Your task to perform on an android device: uninstall "LinkedIn" Image 0: 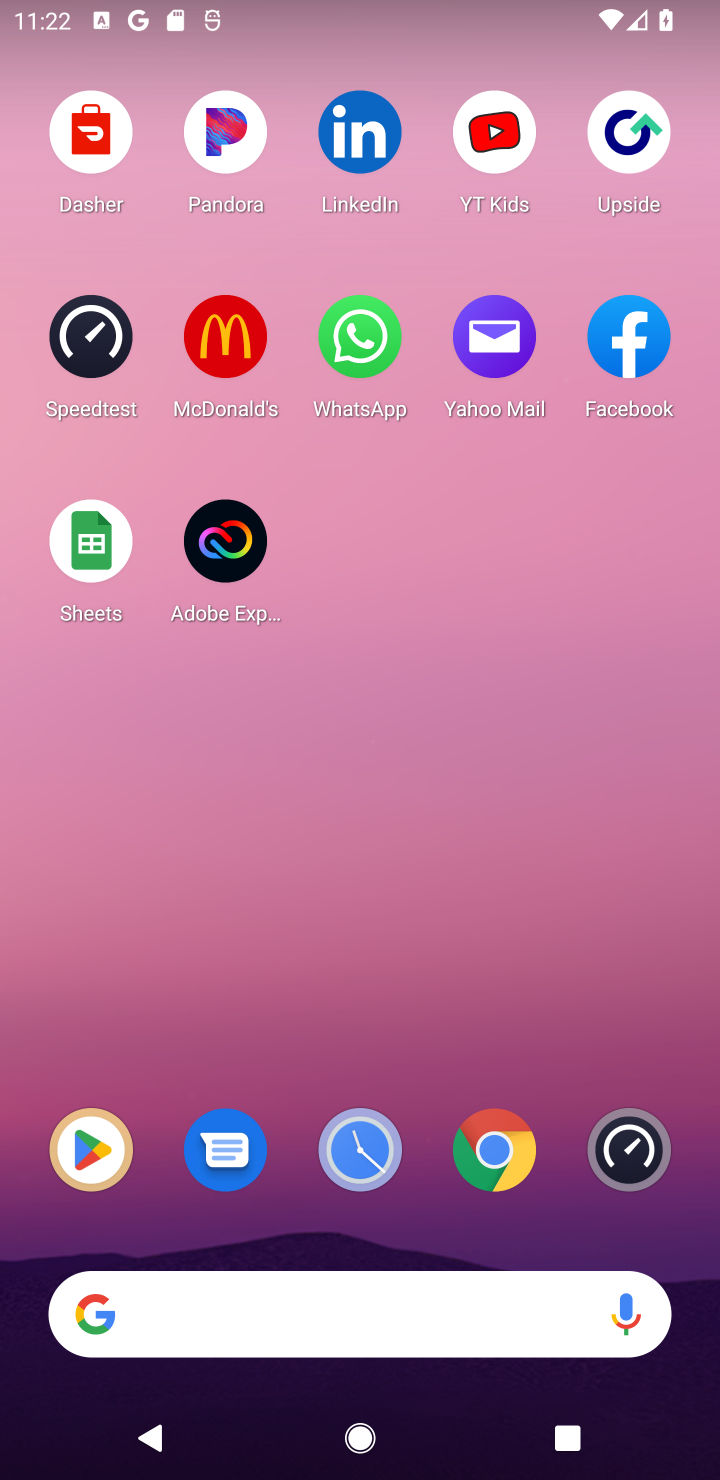
Step 0: click (84, 1138)
Your task to perform on an android device: uninstall "LinkedIn" Image 1: 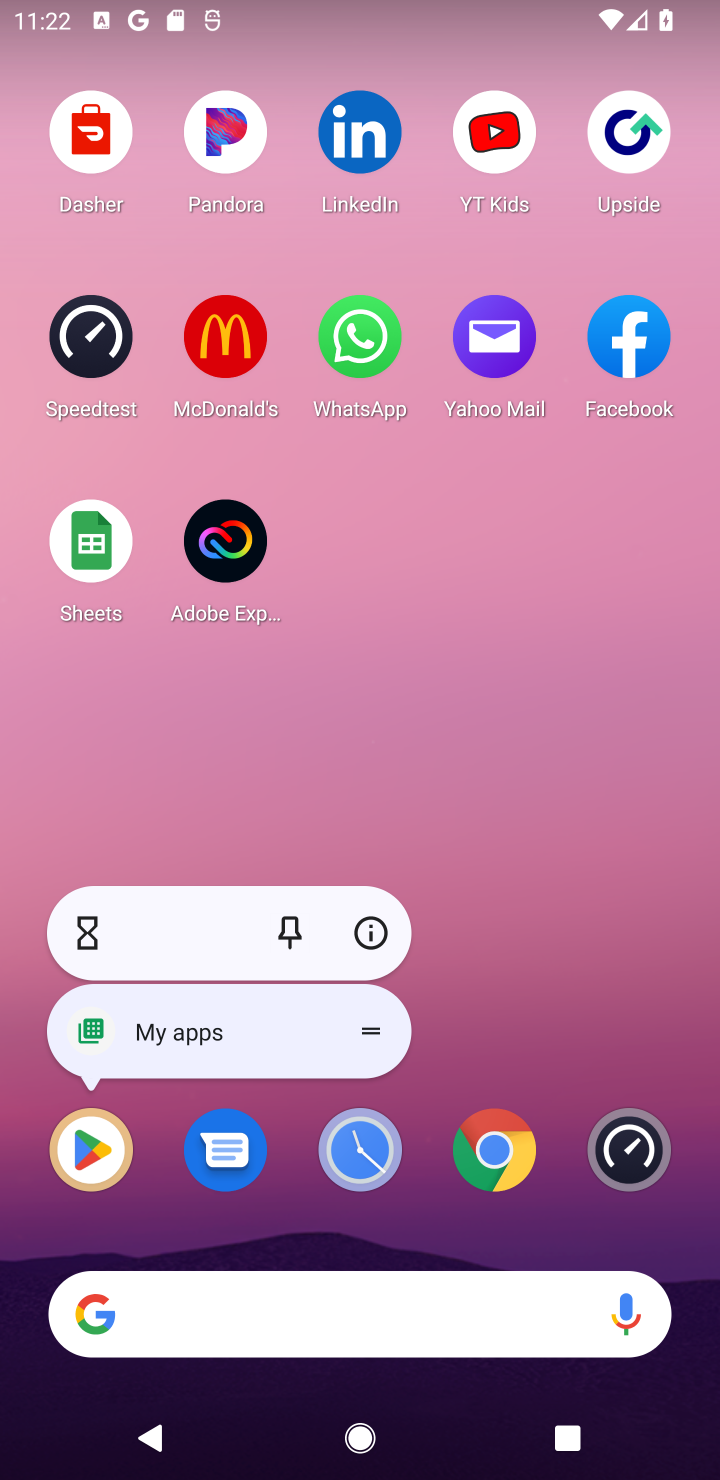
Step 1: click (90, 1150)
Your task to perform on an android device: uninstall "LinkedIn" Image 2: 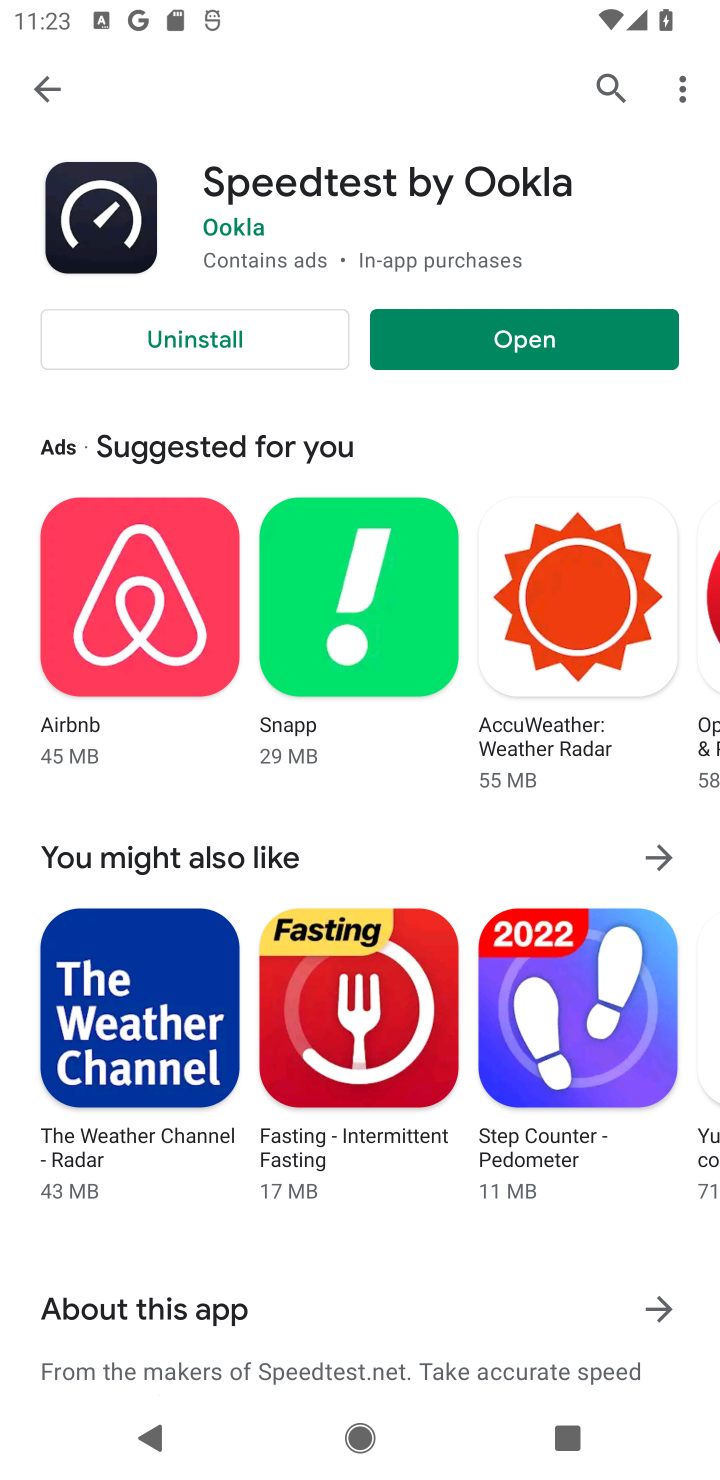
Step 2: click (596, 108)
Your task to perform on an android device: uninstall "LinkedIn" Image 3: 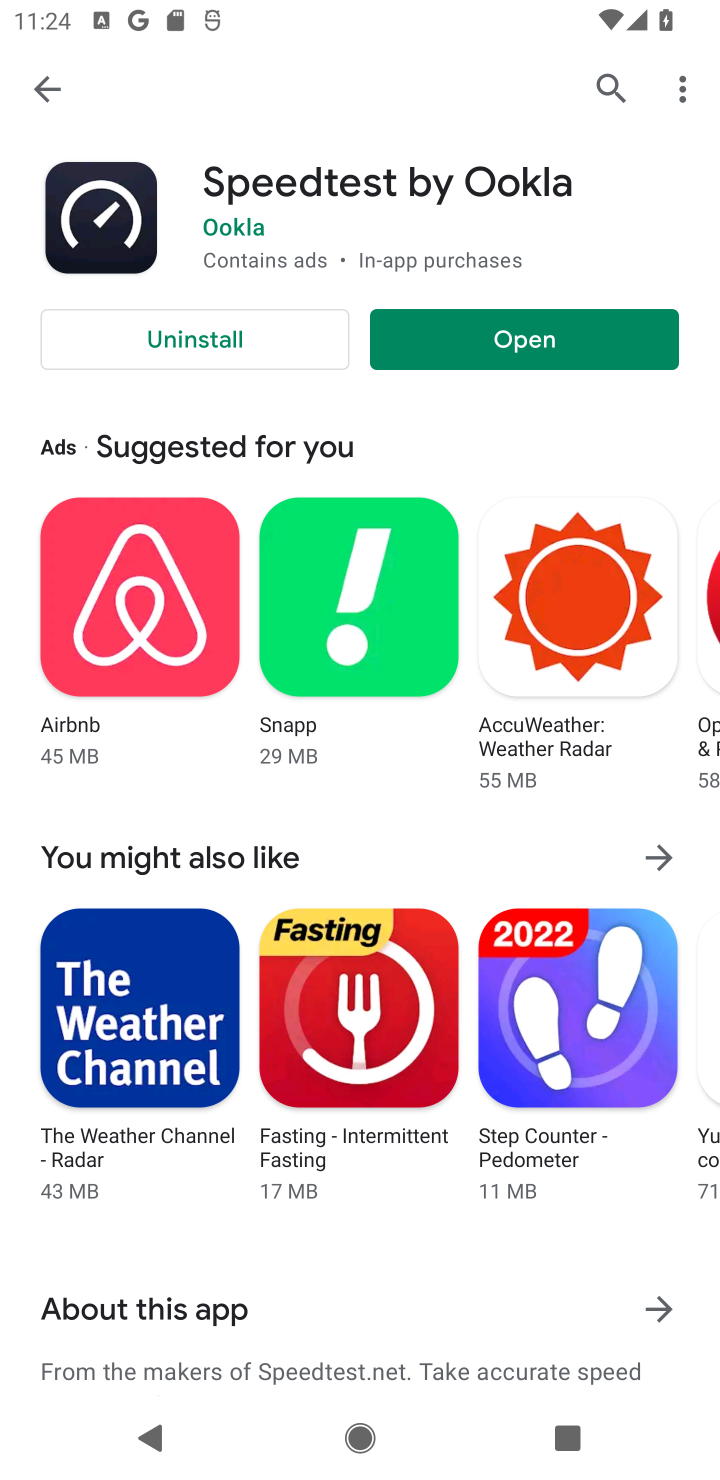
Step 3: click (597, 55)
Your task to perform on an android device: uninstall "LinkedIn" Image 4: 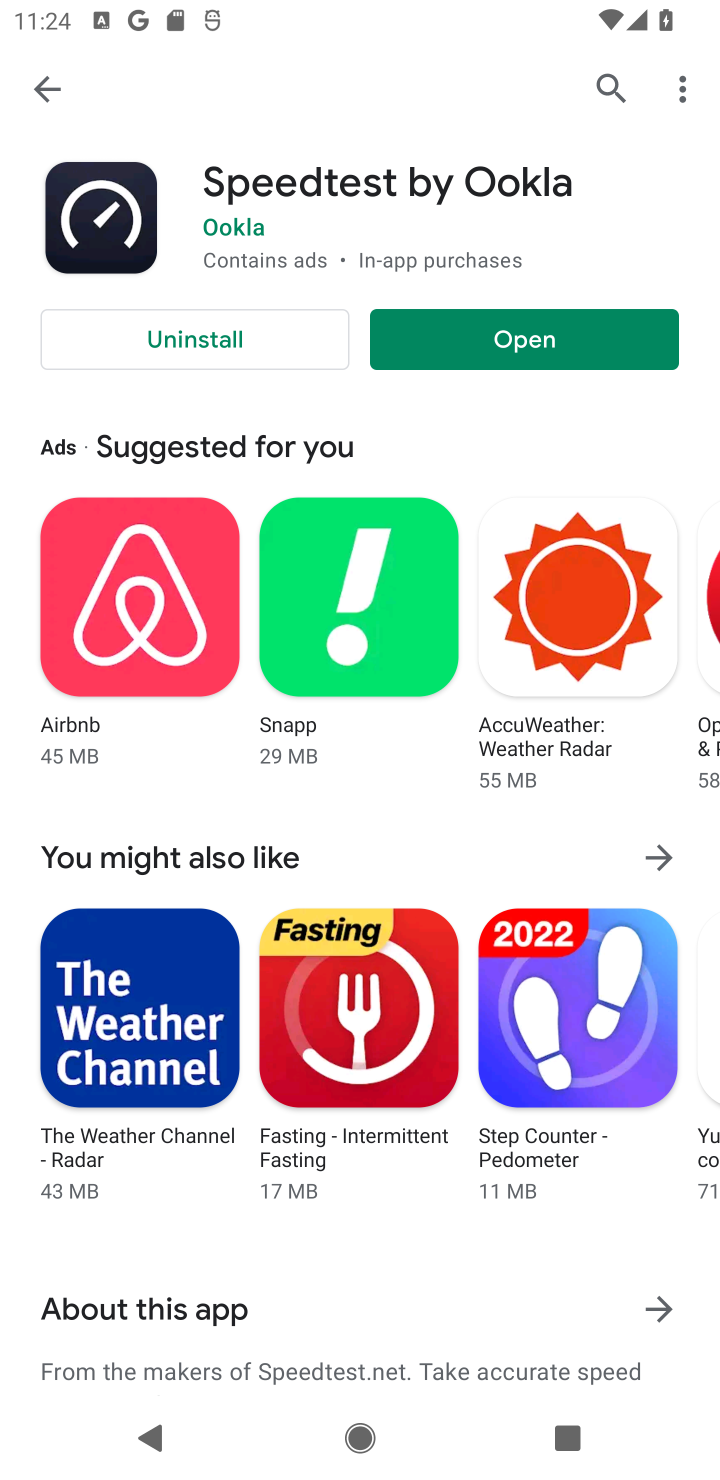
Step 4: click (605, 73)
Your task to perform on an android device: uninstall "LinkedIn" Image 5: 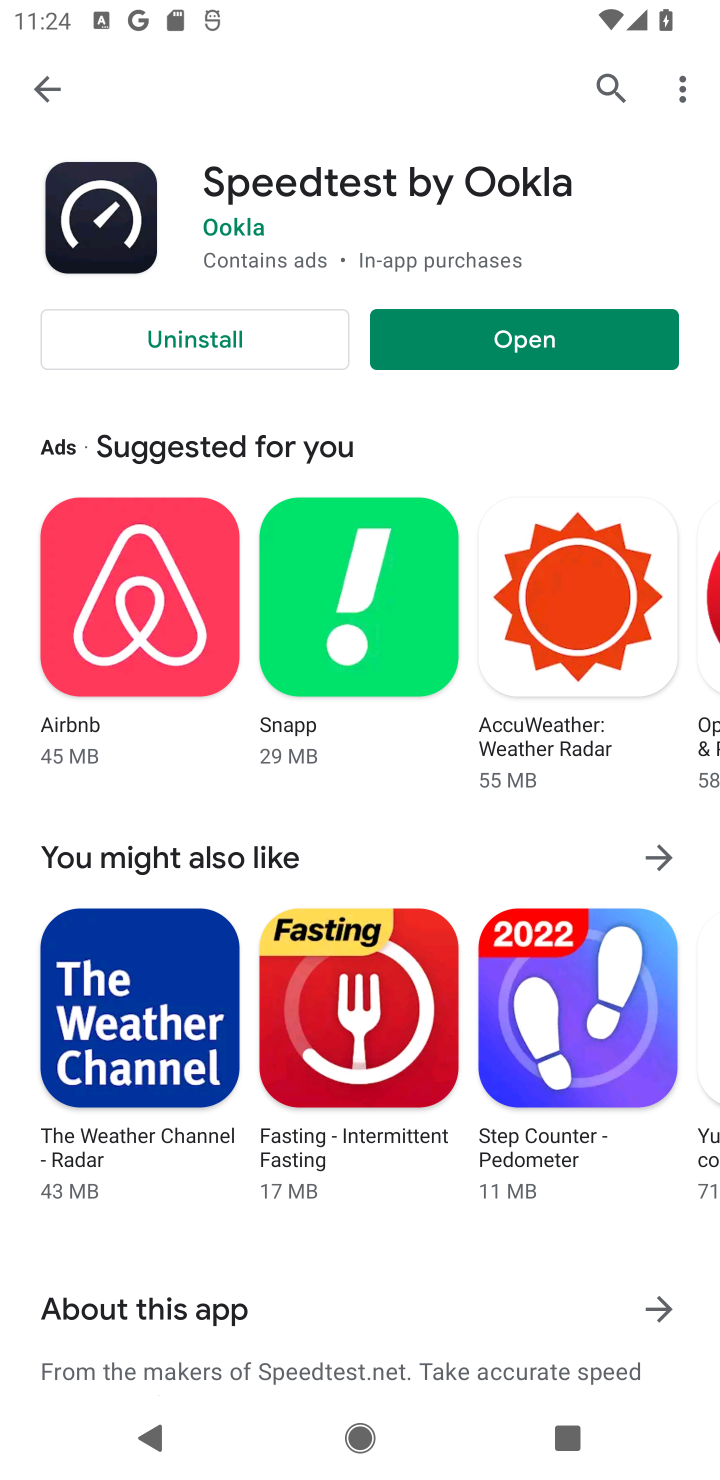
Step 5: click (597, 83)
Your task to perform on an android device: uninstall "LinkedIn" Image 6: 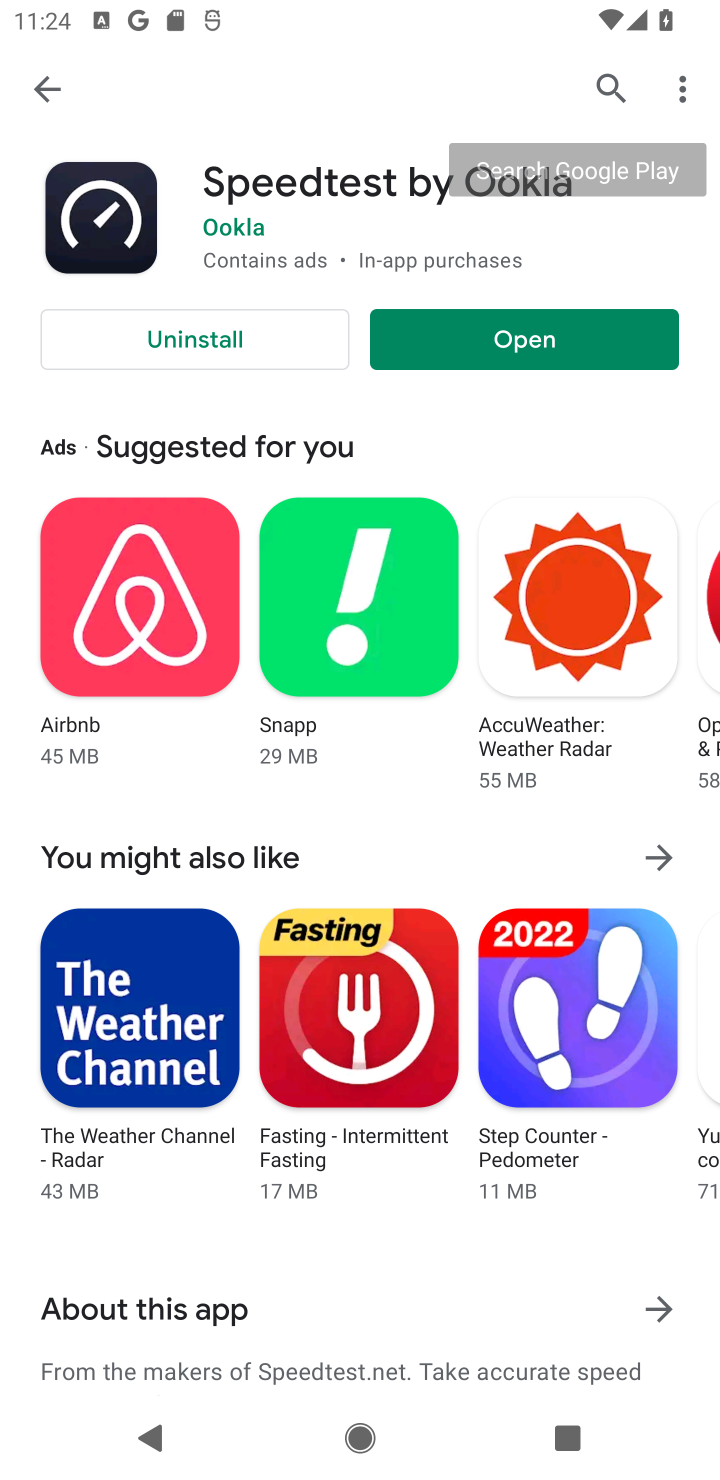
Step 6: click (40, 85)
Your task to perform on an android device: uninstall "LinkedIn" Image 7: 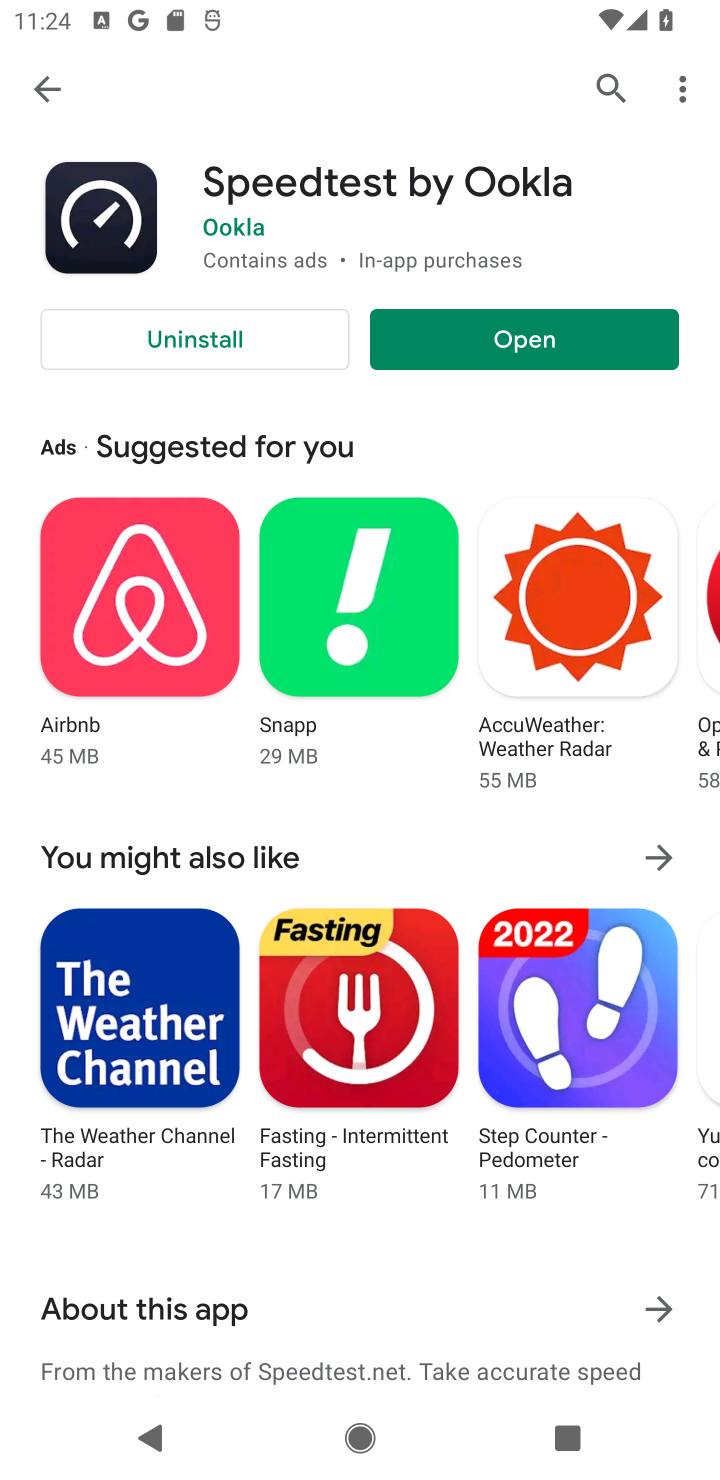
Step 7: click (626, 78)
Your task to perform on an android device: uninstall "LinkedIn" Image 8: 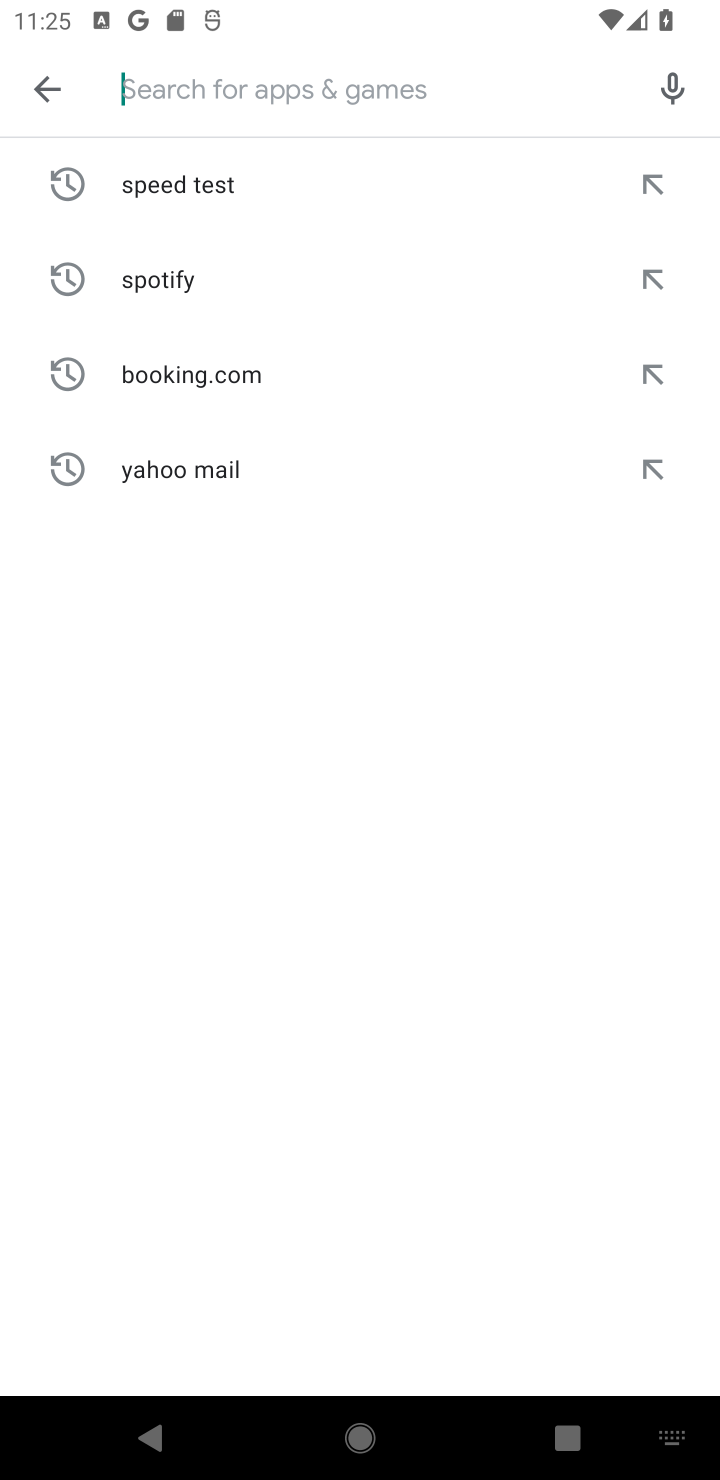
Step 8: click (262, 86)
Your task to perform on an android device: uninstall "LinkedIn" Image 9: 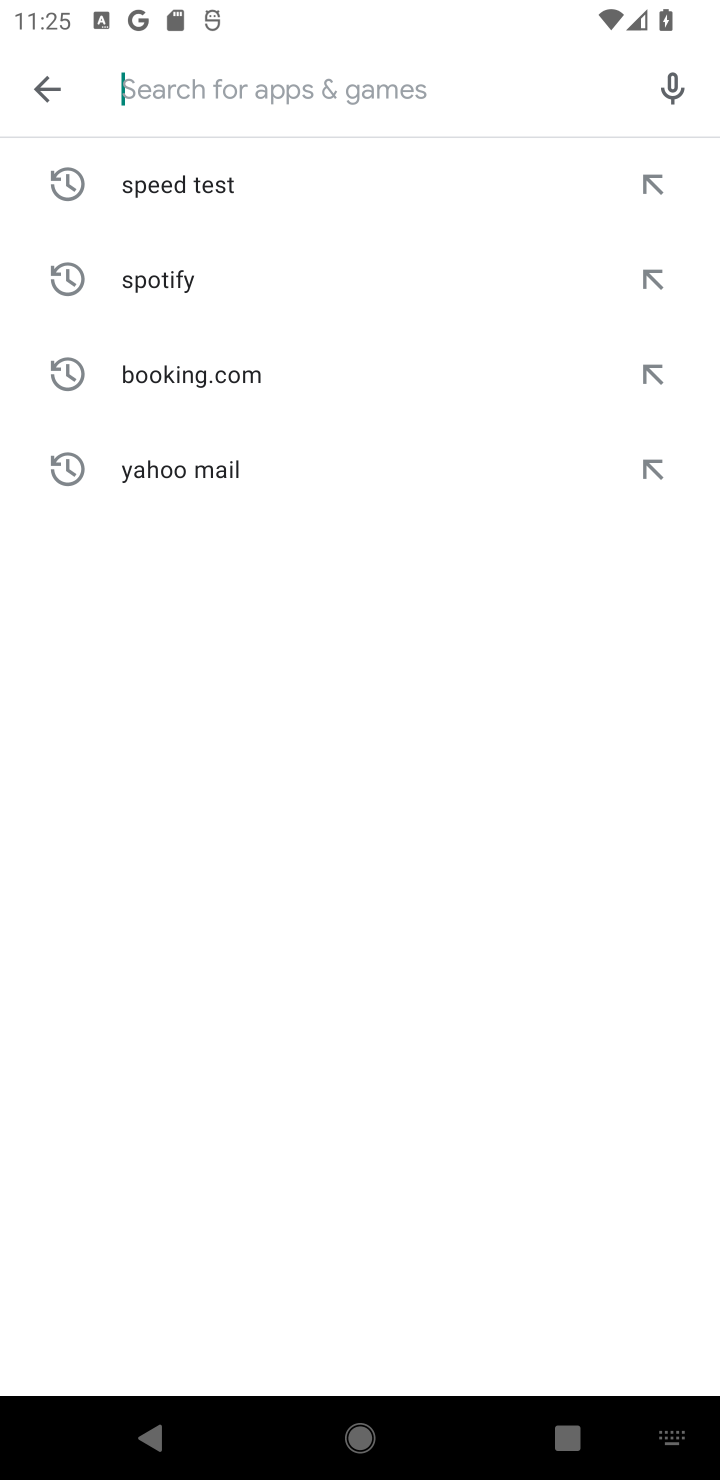
Step 9: type "linkedln"
Your task to perform on an android device: uninstall "LinkedIn" Image 10: 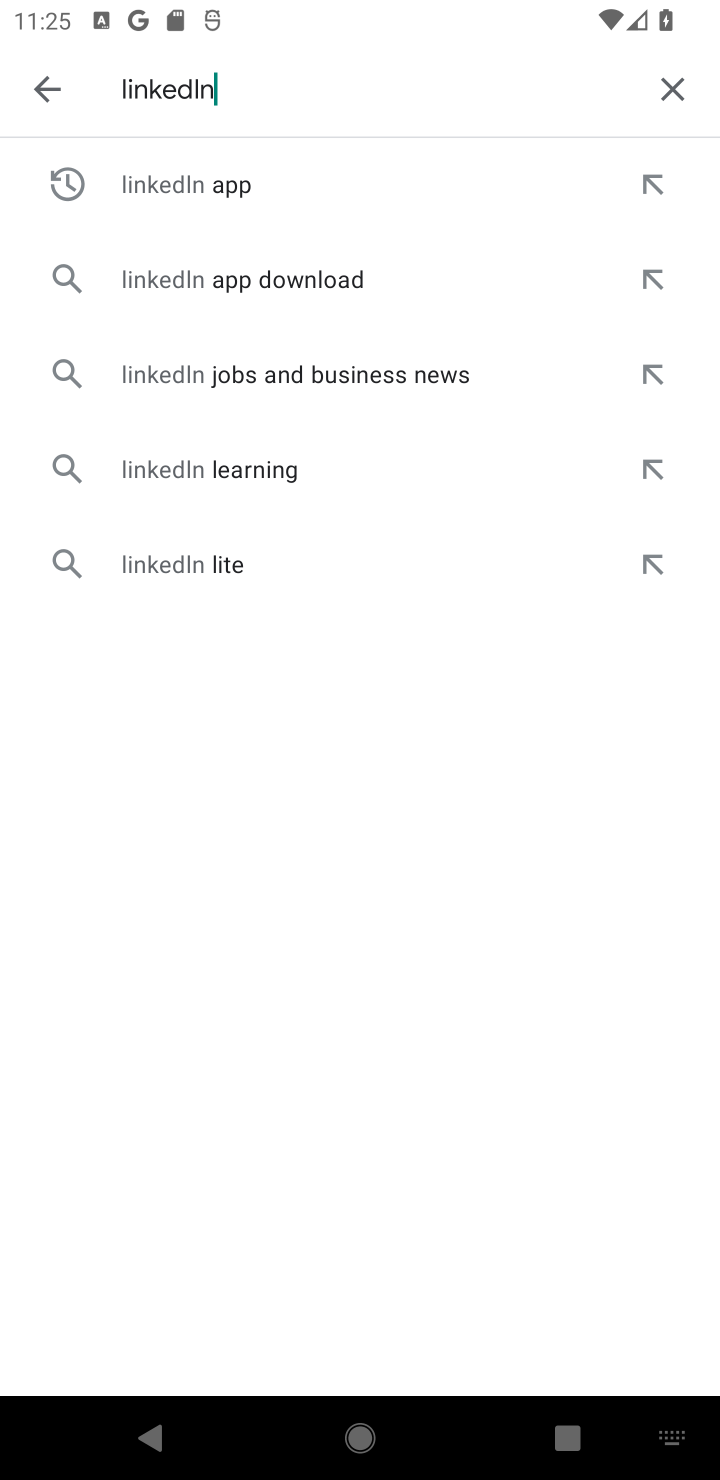
Step 10: click (260, 198)
Your task to perform on an android device: uninstall "LinkedIn" Image 11: 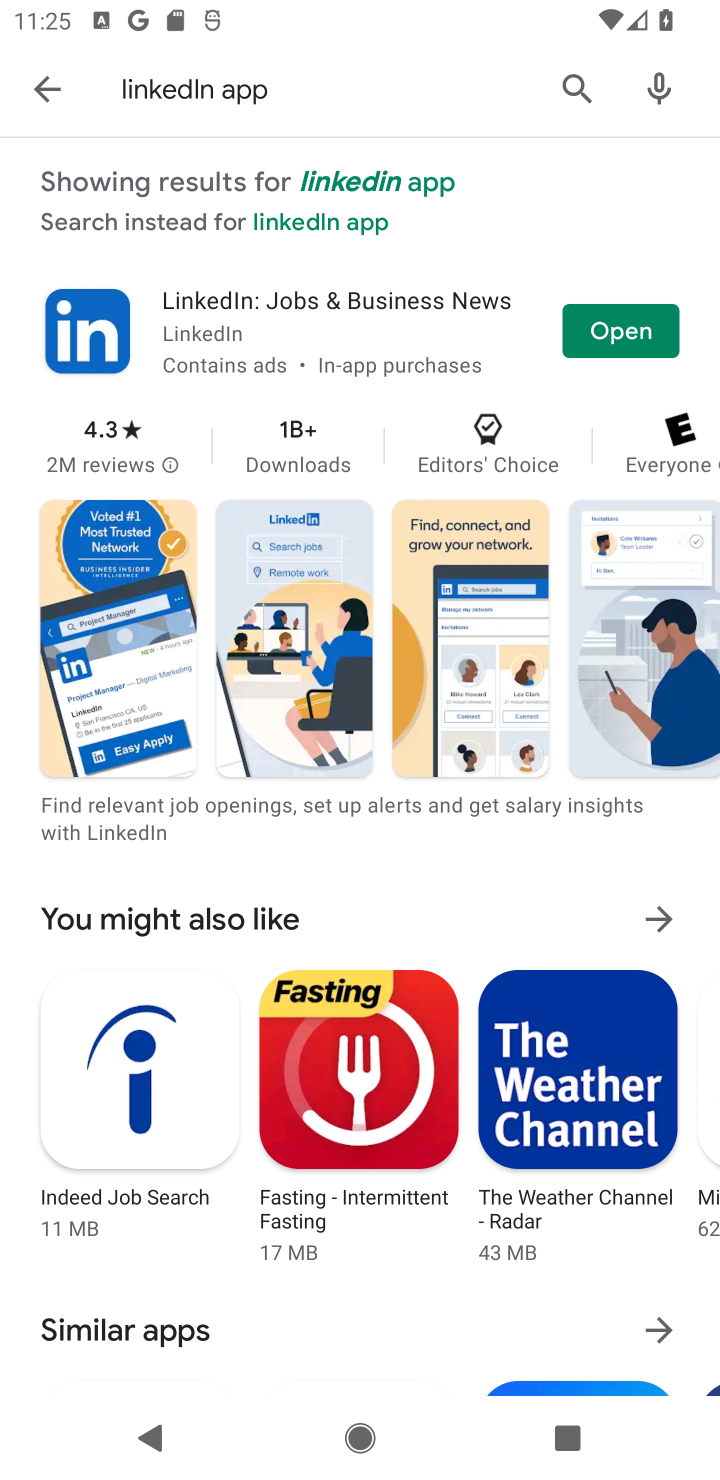
Step 11: click (256, 330)
Your task to perform on an android device: uninstall "LinkedIn" Image 12: 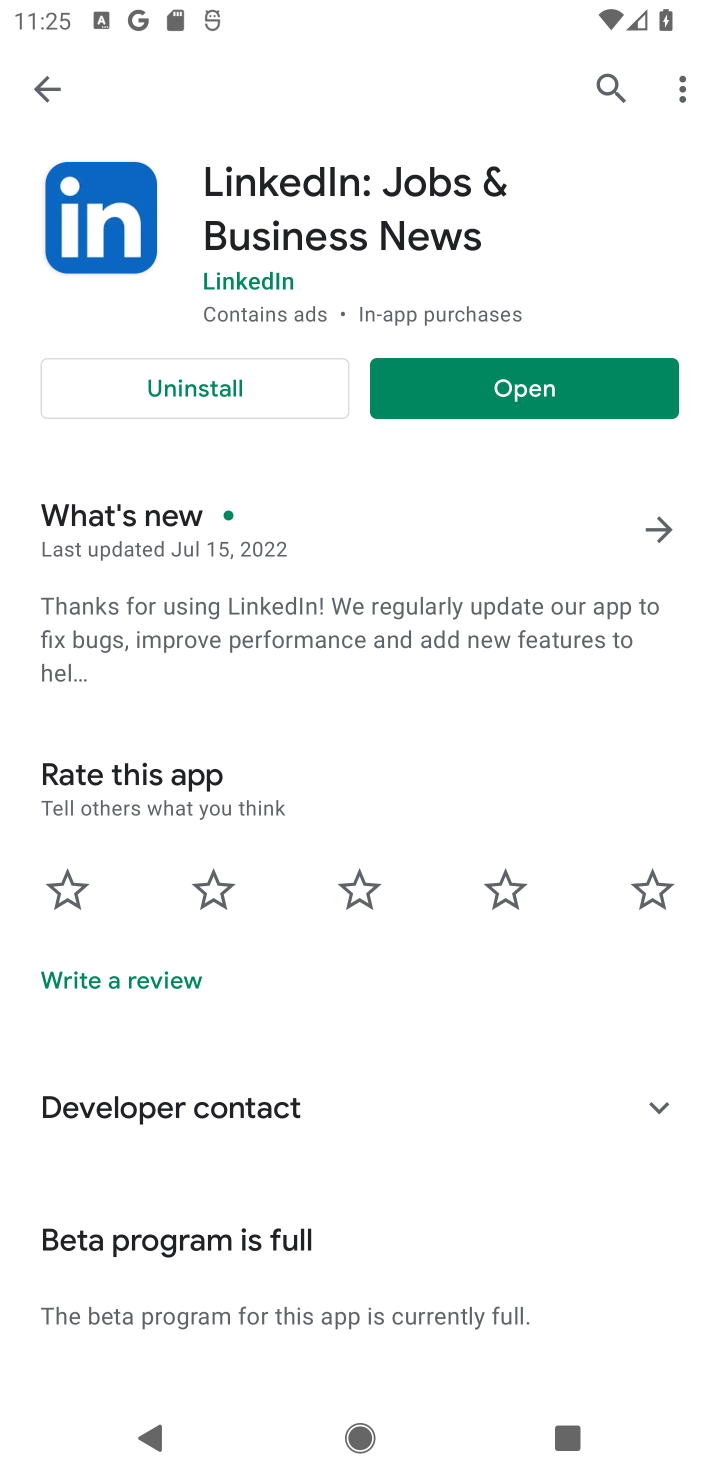
Step 12: click (236, 384)
Your task to perform on an android device: uninstall "LinkedIn" Image 13: 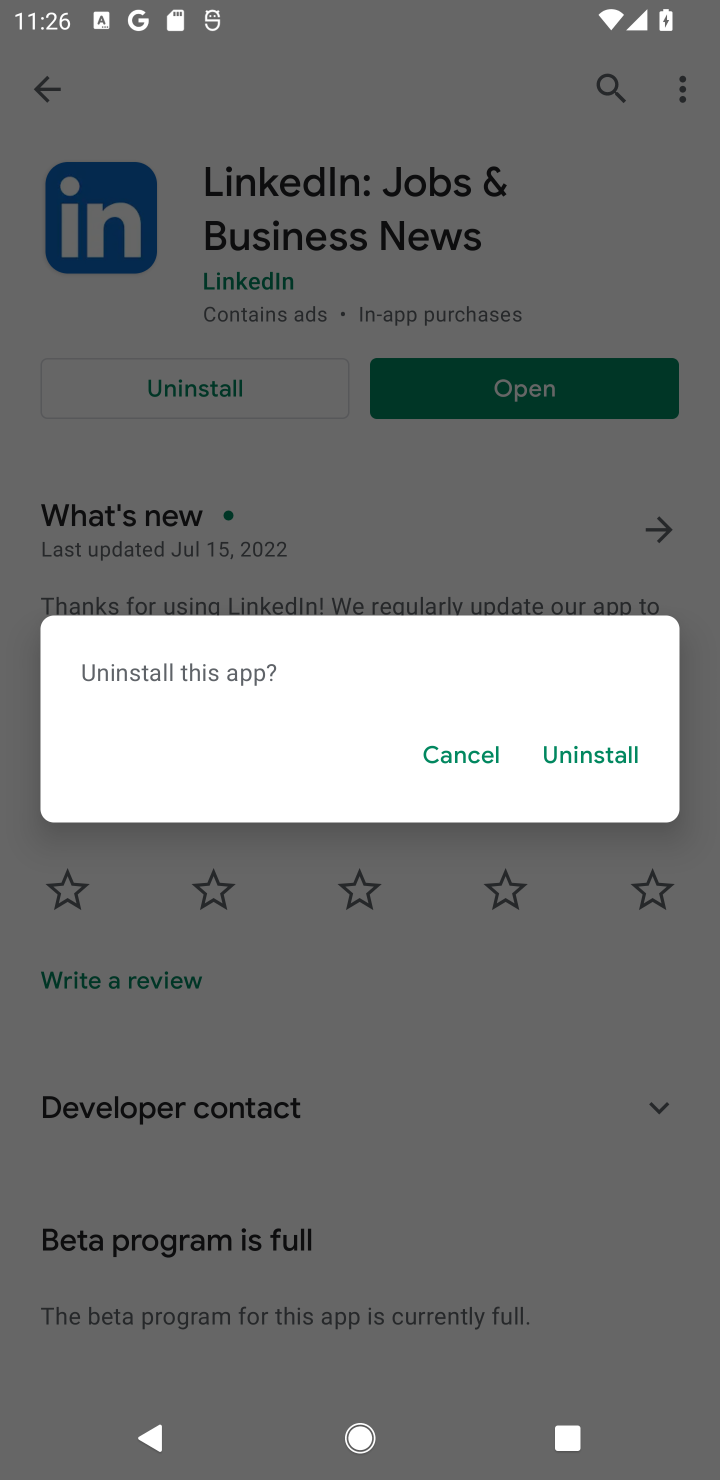
Step 13: click (590, 762)
Your task to perform on an android device: uninstall "LinkedIn" Image 14: 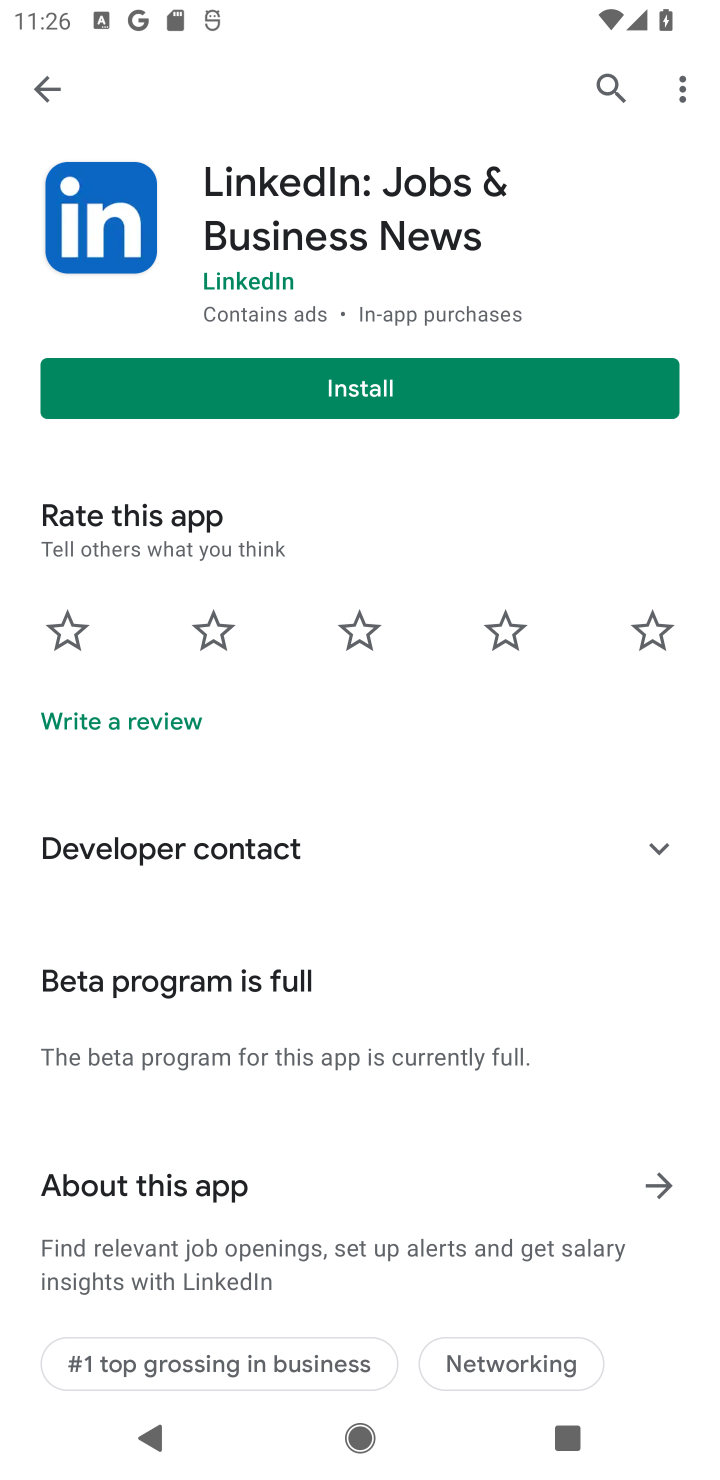
Step 14: task complete